Your task to perform on an android device: Open the web browser Image 0: 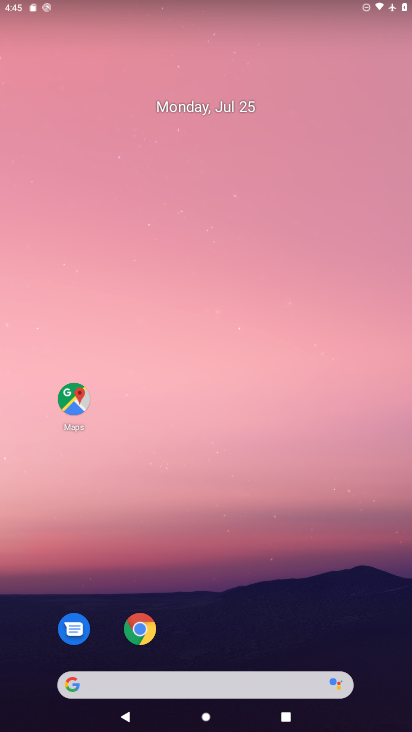
Step 0: drag from (138, 578) to (190, 5)
Your task to perform on an android device: Open the web browser Image 1: 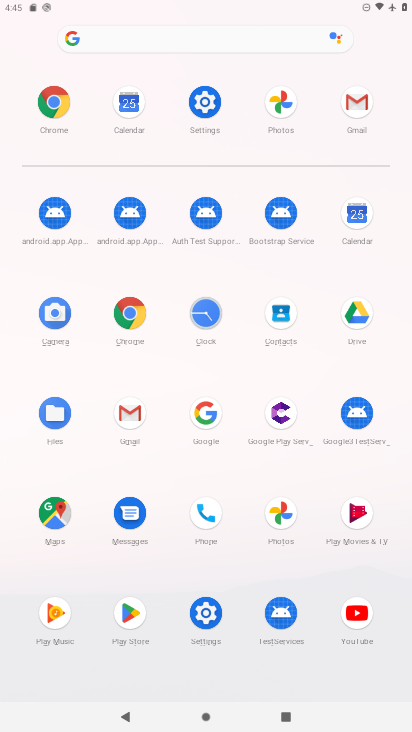
Step 1: click (137, 307)
Your task to perform on an android device: Open the web browser Image 2: 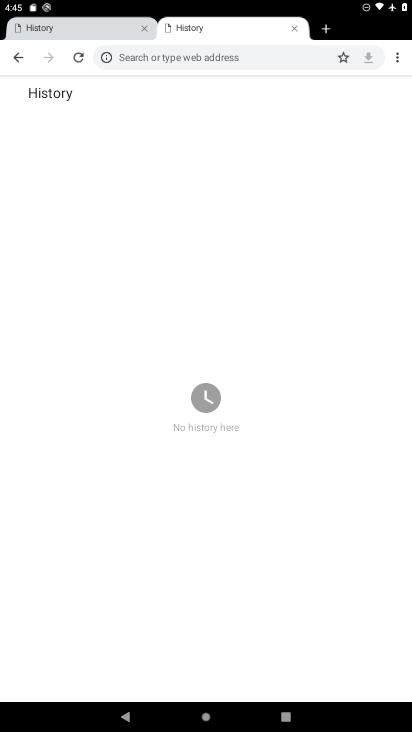
Step 2: task complete